Your task to perform on an android device: Search for Mexican restaurants on Maps Image 0: 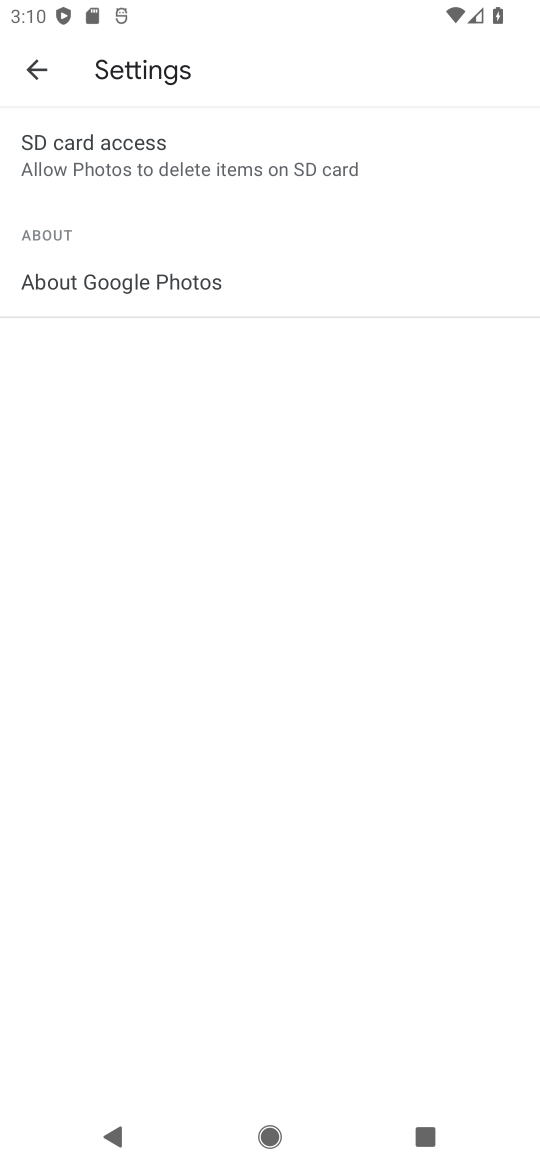
Step 0: press home button
Your task to perform on an android device: Search for Mexican restaurants on Maps Image 1: 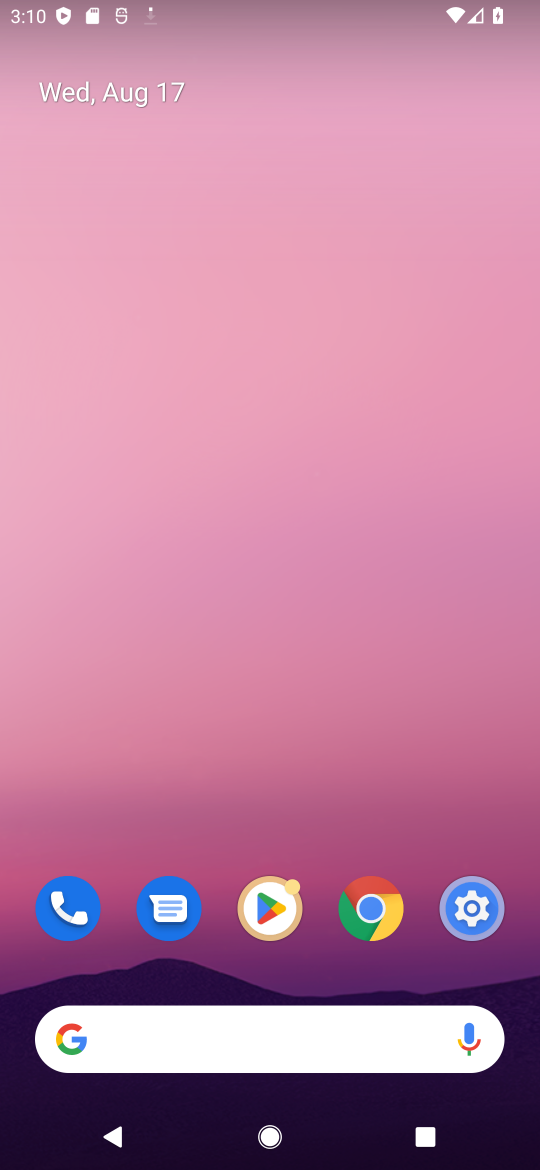
Step 1: drag from (240, 1037) to (221, 261)
Your task to perform on an android device: Search for Mexican restaurants on Maps Image 2: 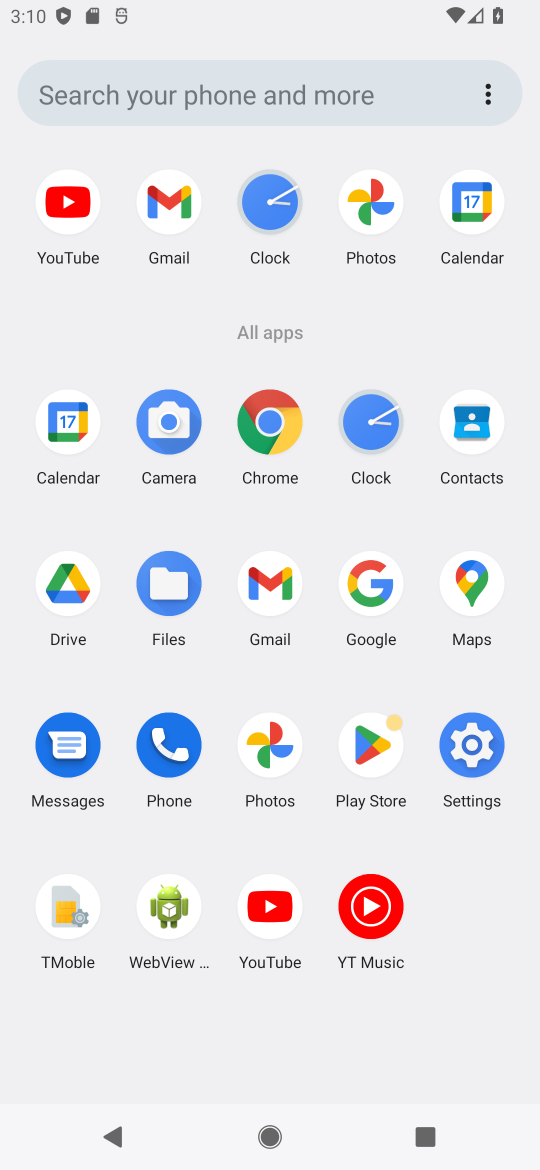
Step 2: click (471, 575)
Your task to perform on an android device: Search for Mexican restaurants on Maps Image 3: 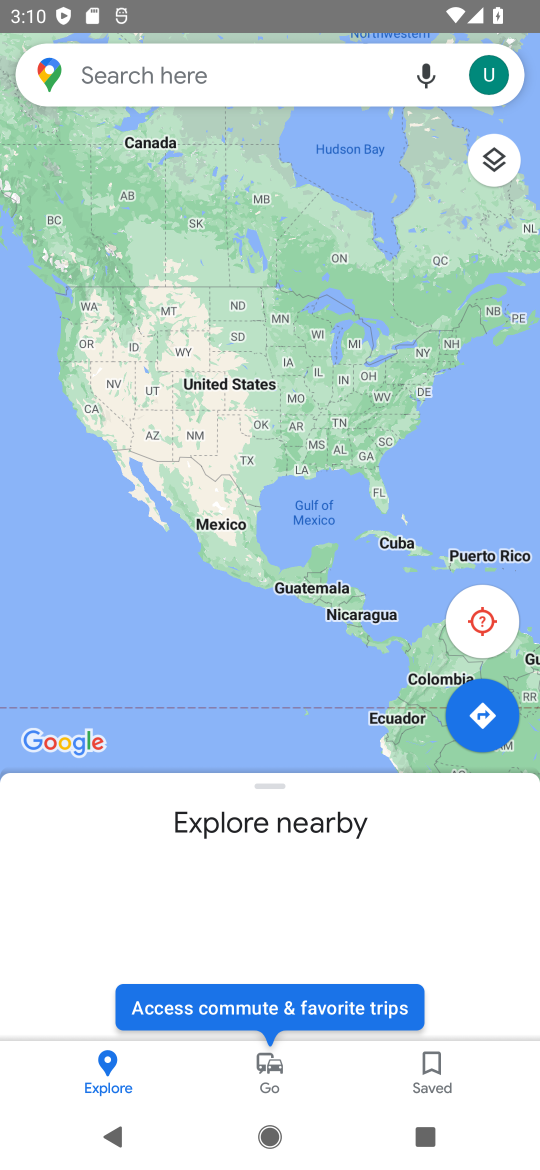
Step 3: click (295, 84)
Your task to perform on an android device: Search for Mexican restaurants on Maps Image 4: 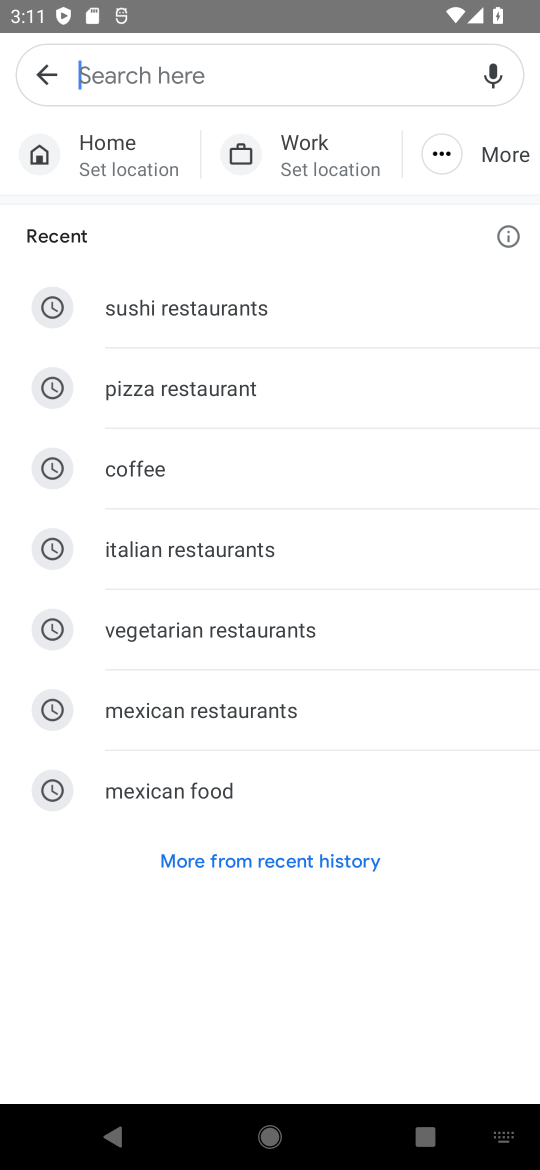
Step 4: type "Mexican restaurants"
Your task to perform on an android device: Search for Mexican restaurants on Maps Image 5: 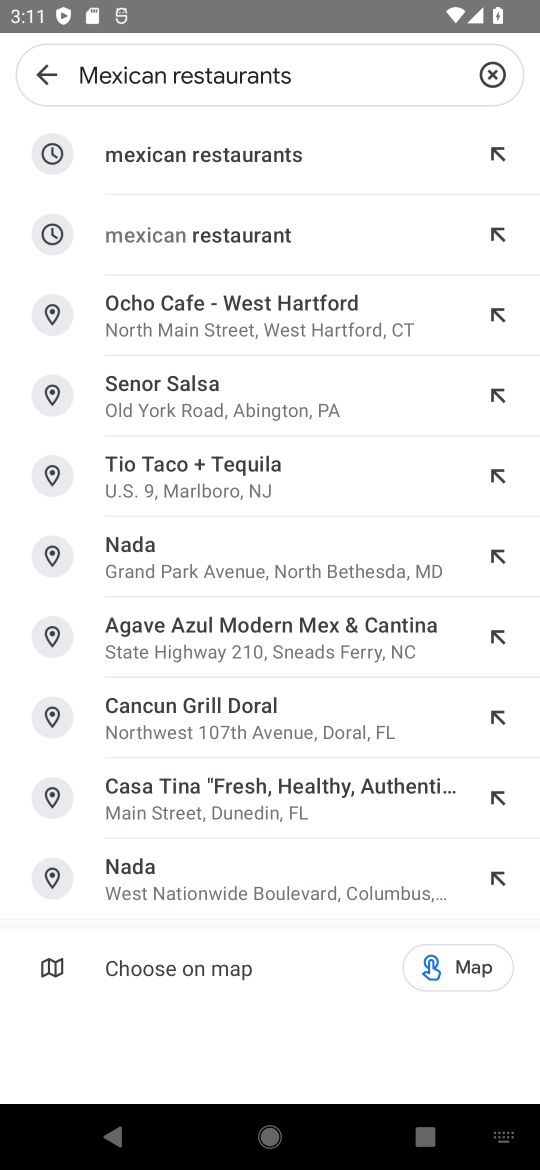
Step 5: click (229, 152)
Your task to perform on an android device: Search for Mexican restaurants on Maps Image 6: 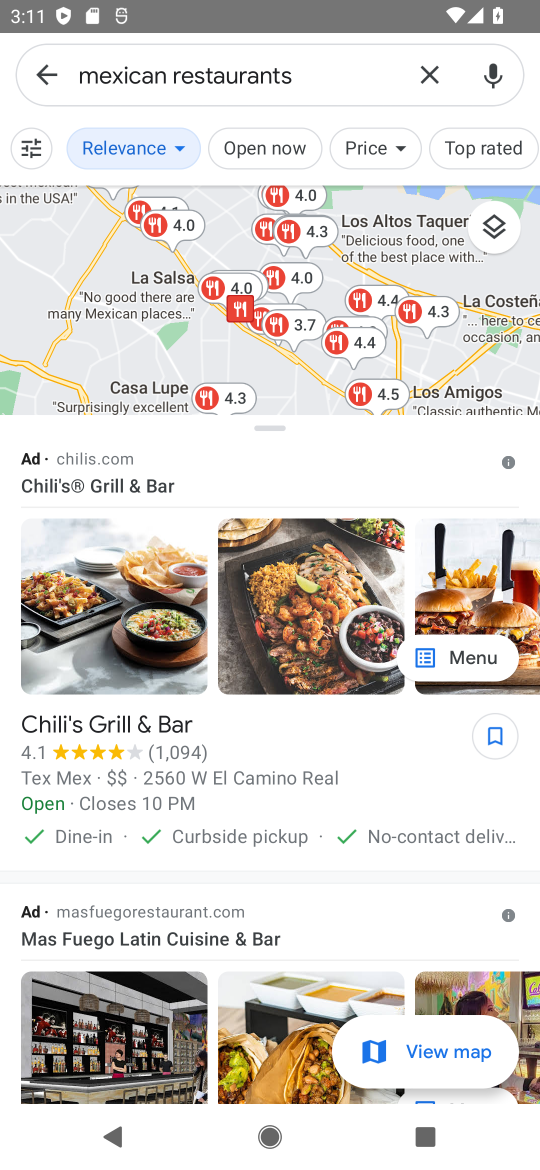
Step 6: task complete